Your task to perform on an android device: read, delete, or share a saved page in the chrome app Image 0: 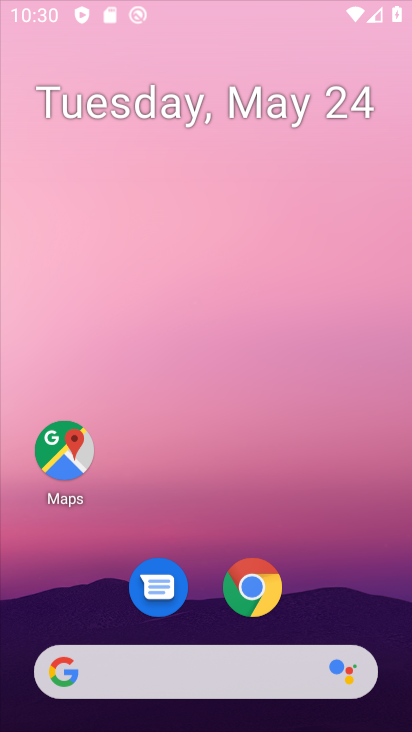
Step 0: drag from (295, 673) to (142, 25)
Your task to perform on an android device: read, delete, or share a saved page in the chrome app Image 1: 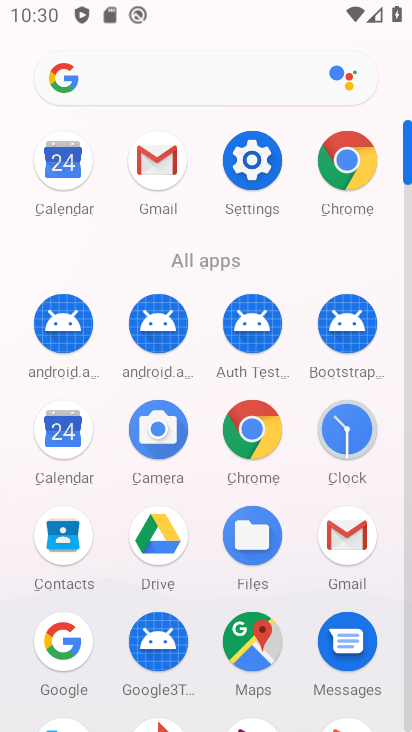
Step 1: click (350, 165)
Your task to perform on an android device: read, delete, or share a saved page in the chrome app Image 2: 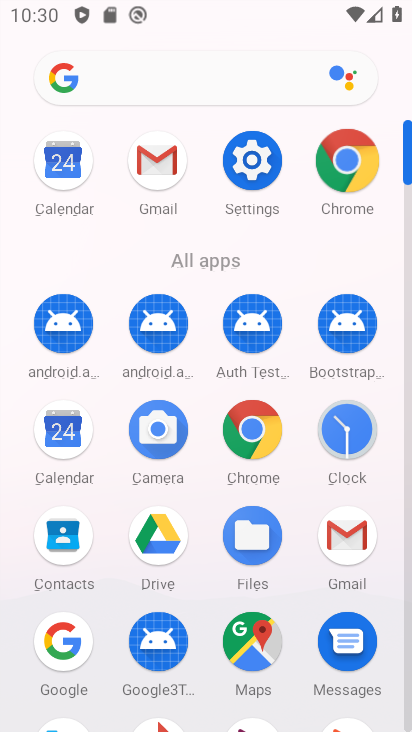
Step 2: click (350, 165)
Your task to perform on an android device: read, delete, or share a saved page in the chrome app Image 3: 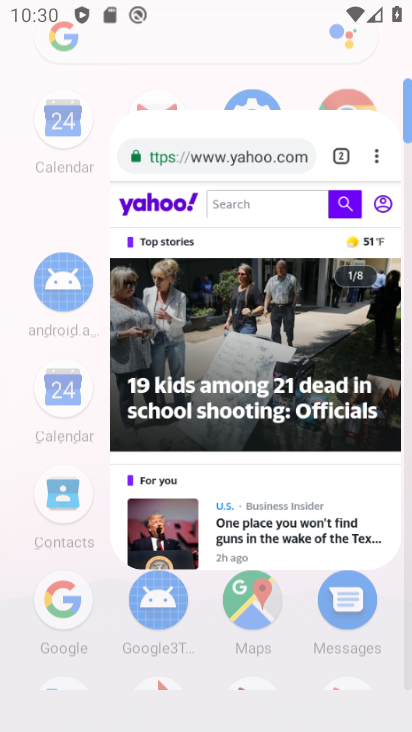
Step 3: click (350, 165)
Your task to perform on an android device: read, delete, or share a saved page in the chrome app Image 4: 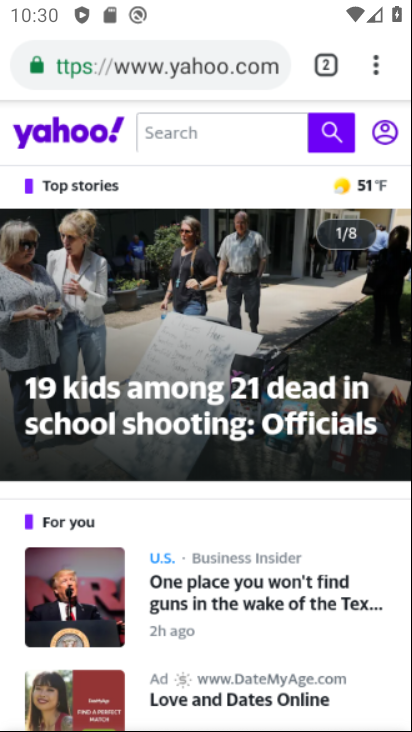
Step 4: click (350, 165)
Your task to perform on an android device: read, delete, or share a saved page in the chrome app Image 5: 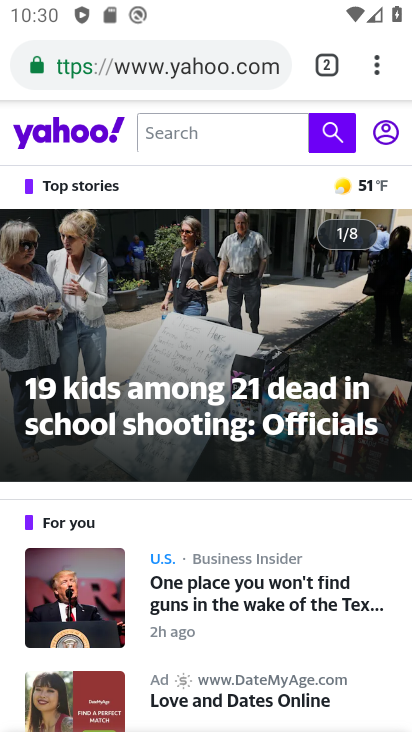
Step 5: drag from (384, 65) to (163, 280)
Your task to perform on an android device: read, delete, or share a saved page in the chrome app Image 6: 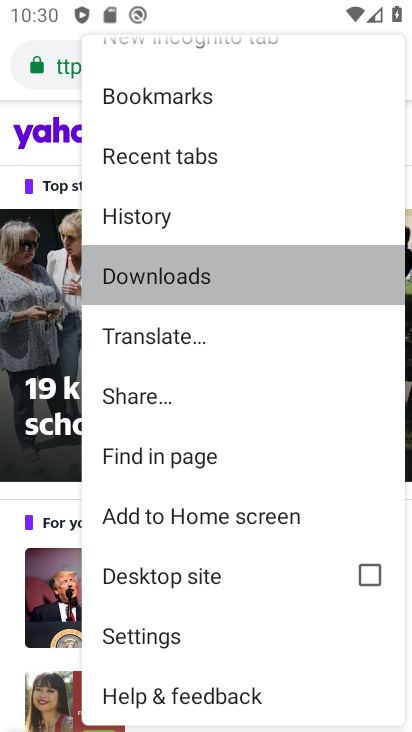
Step 6: click (164, 281)
Your task to perform on an android device: read, delete, or share a saved page in the chrome app Image 7: 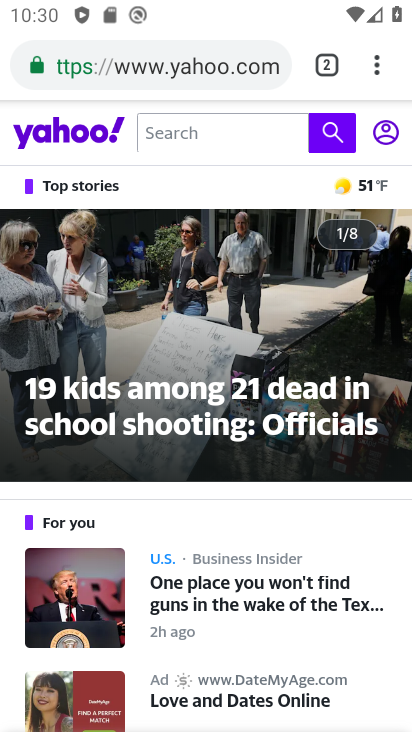
Step 7: click (165, 282)
Your task to perform on an android device: read, delete, or share a saved page in the chrome app Image 8: 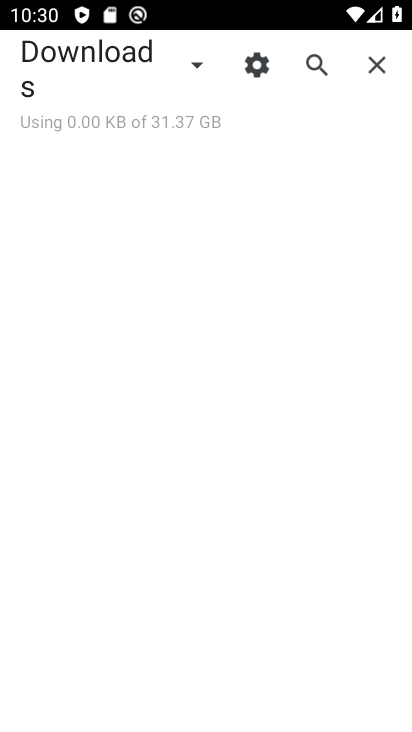
Step 8: task complete